Your task to perform on an android device: Open accessibility settings Image 0: 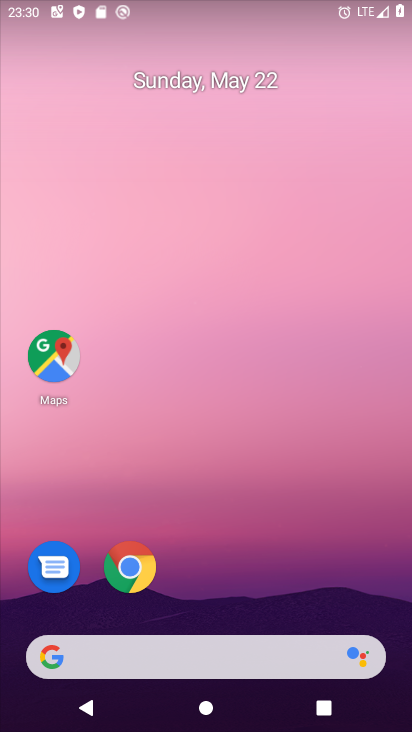
Step 0: drag from (207, 538) to (162, 0)
Your task to perform on an android device: Open accessibility settings Image 1: 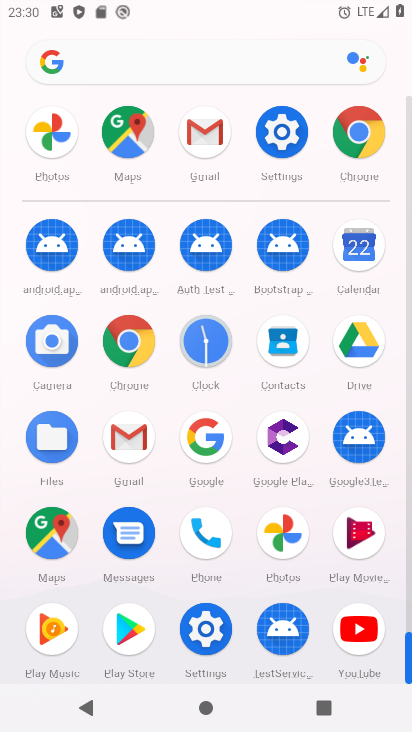
Step 1: drag from (18, 579) to (2, 177)
Your task to perform on an android device: Open accessibility settings Image 2: 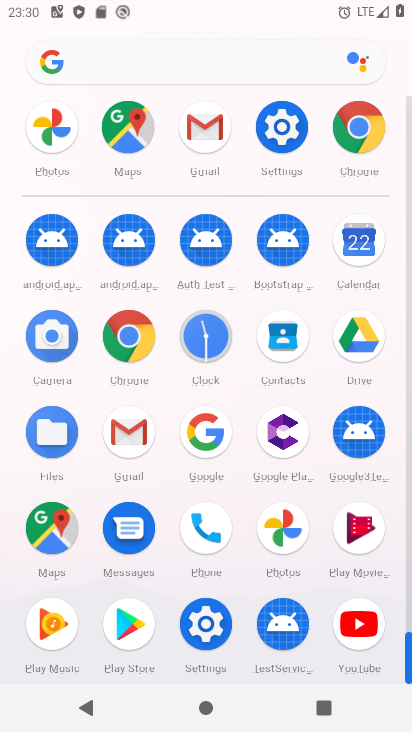
Step 2: click (204, 620)
Your task to perform on an android device: Open accessibility settings Image 3: 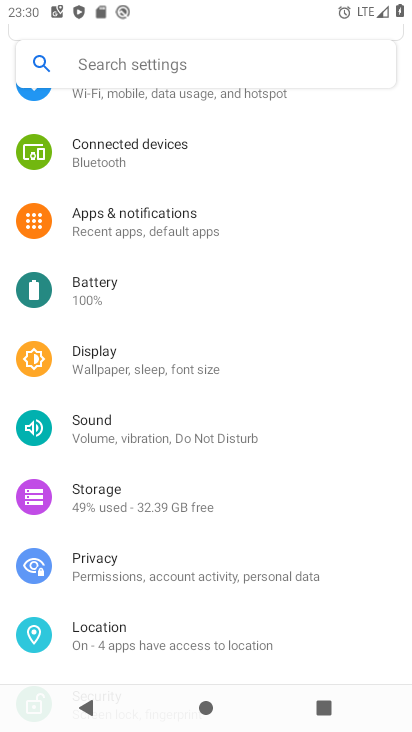
Step 3: drag from (255, 636) to (259, 142)
Your task to perform on an android device: Open accessibility settings Image 4: 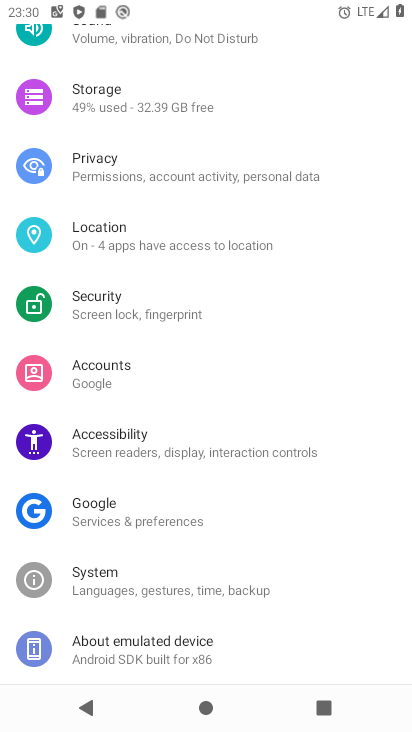
Step 4: click (152, 435)
Your task to perform on an android device: Open accessibility settings Image 5: 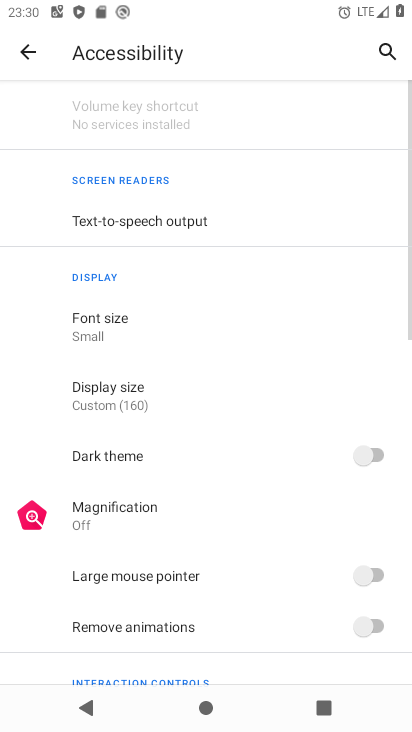
Step 5: task complete